Your task to perform on an android device: star an email in the gmail app Image 0: 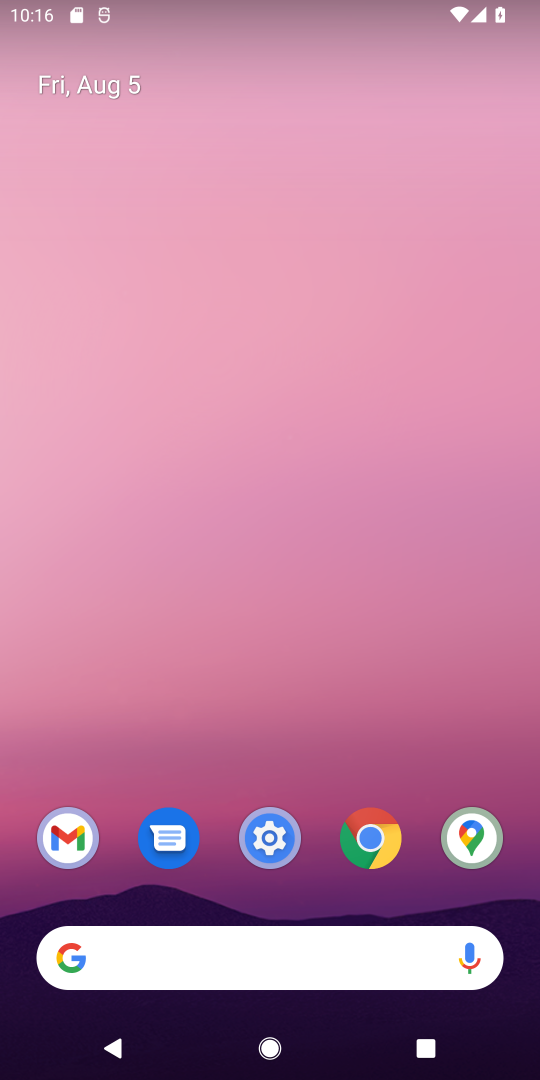
Step 0: click (44, 834)
Your task to perform on an android device: star an email in the gmail app Image 1: 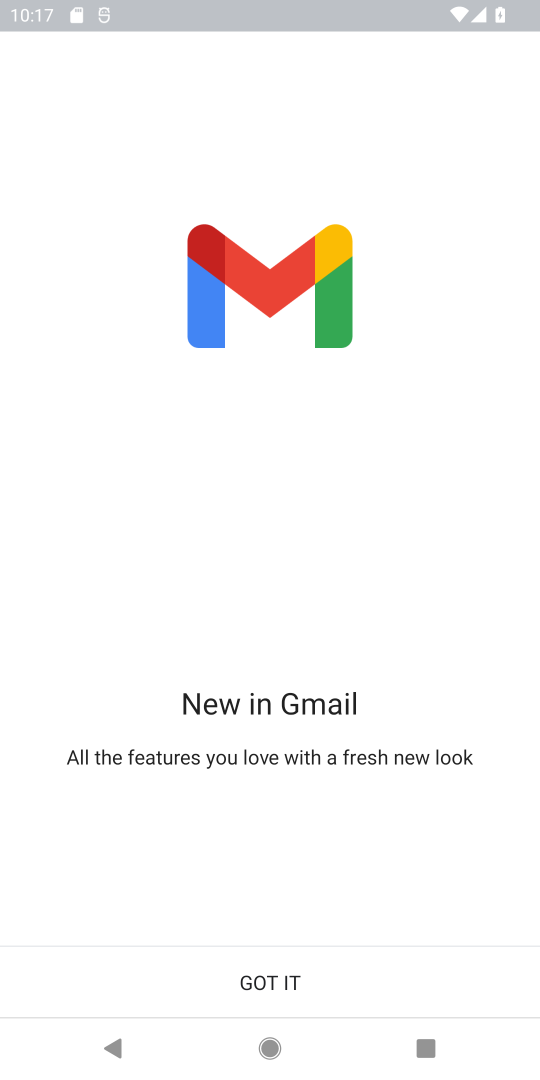
Step 1: click (289, 986)
Your task to perform on an android device: star an email in the gmail app Image 2: 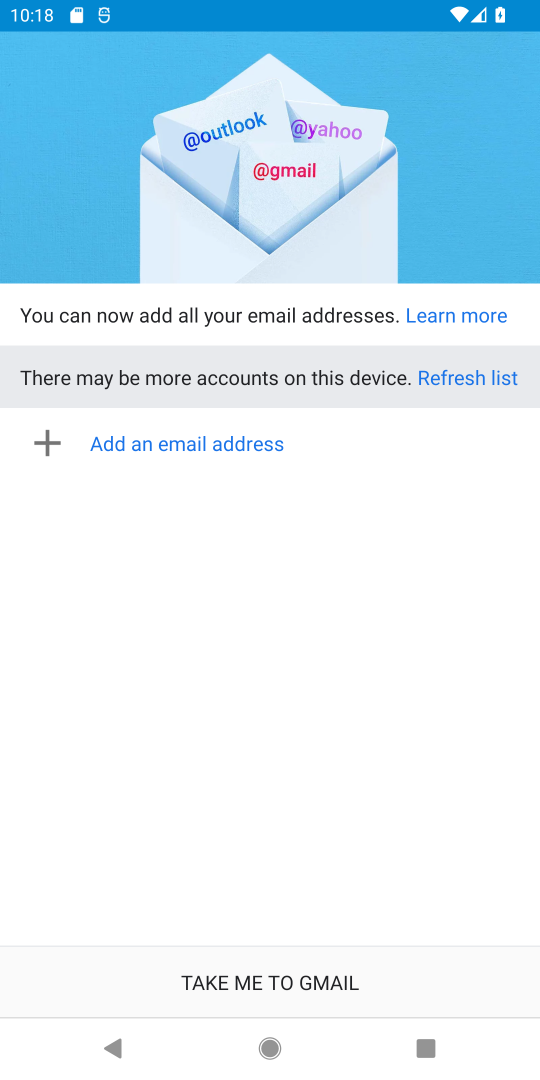
Step 2: task complete